Your task to perform on an android device: Open Yahoo.com Image 0: 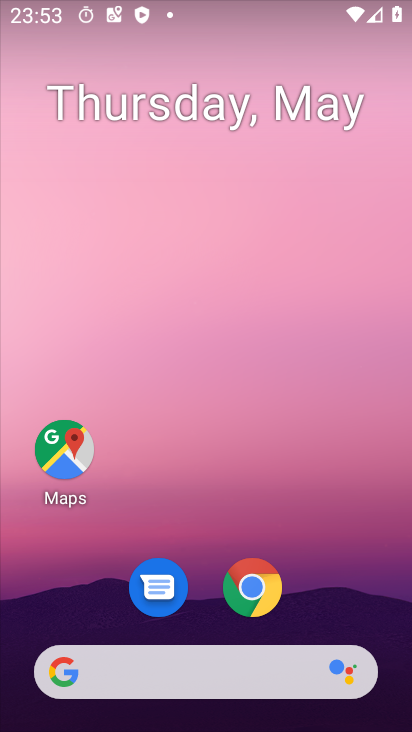
Step 0: click (266, 584)
Your task to perform on an android device: Open Yahoo.com Image 1: 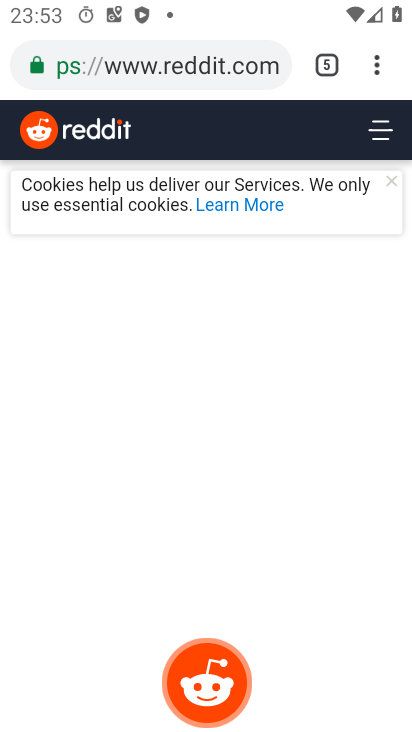
Step 1: click (172, 73)
Your task to perform on an android device: Open Yahoo.com Image 2: 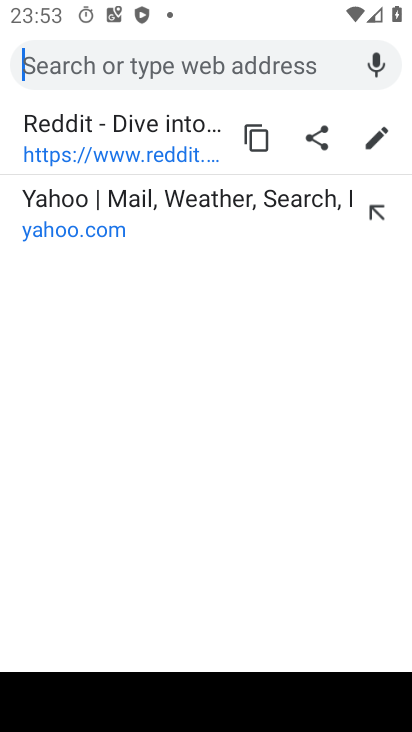
Step 2: click (122, 213)
Your task to perform on an android device: Open Yahoo.com Image 3: 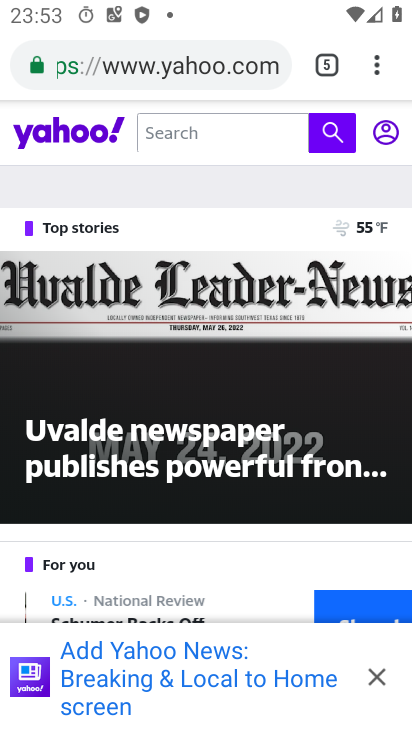
Step 3: task complete